Your task to perform on an android device: Play the last video I watched on Youtube Image 0: 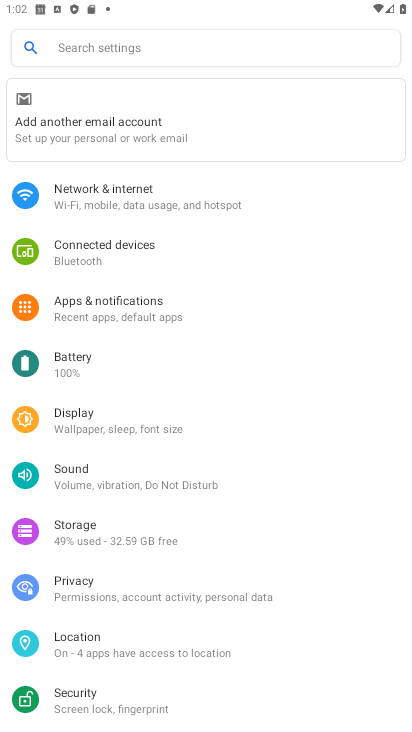
Step 0: press home button
Your task to perform on an android device: Play the last video I watched on Youtube Image 1: 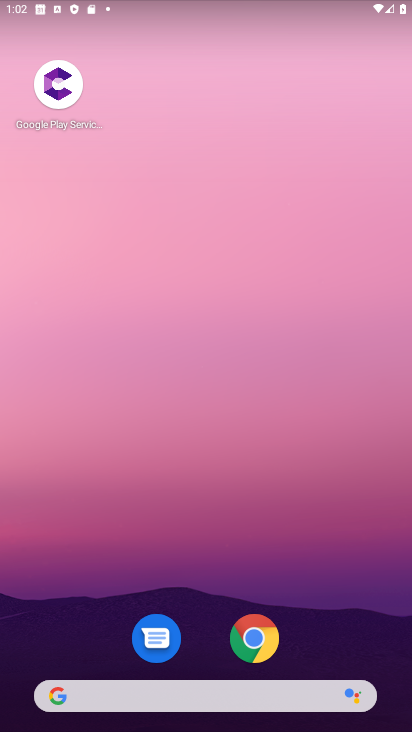
Step 1: drag from (193, 601) to (217, 183)
Your task to perform on an android device: Play the last video I watched on Youtube Image 2: 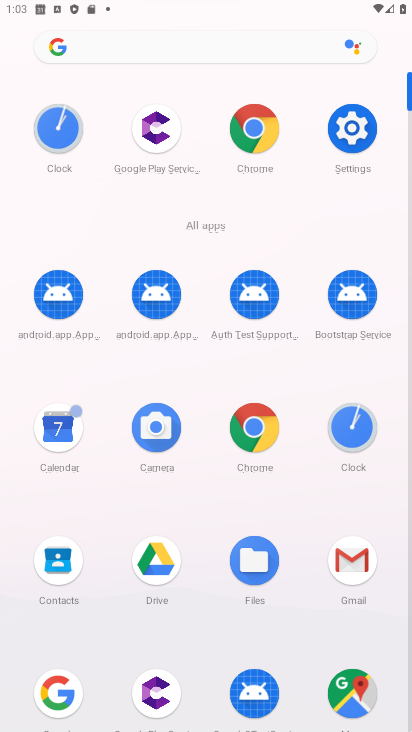
Step 2: drag from (211, 656) to (229, 271)
Your task to perform on an android device: Play the last video I watched on Youtube Image 3: 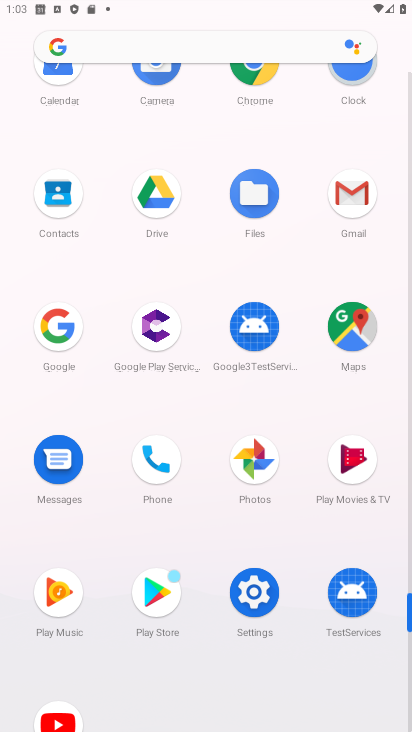
Step 3: click (57, 717)
Your task to perform on an android device: Play the last video I watched on Youtube Image 4: 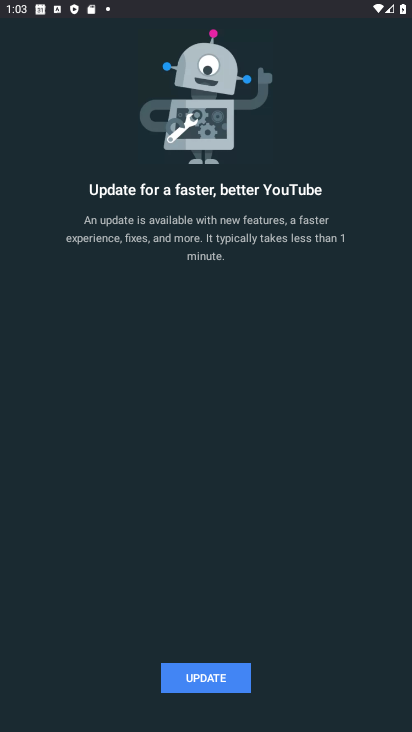
Step 4: click (226, 684)
Your task to perform on an android device: Play the last video I watched on Youtube Image 5: 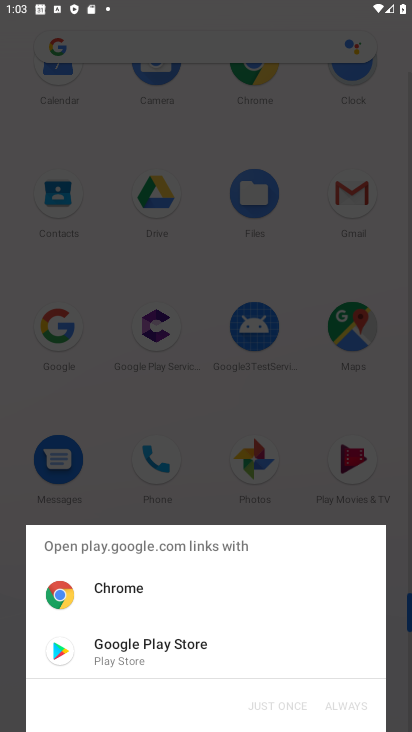
Step 5: click (173, 649)
Your task to perform on an android device: Play the last video I watched on Youtube Image 6: 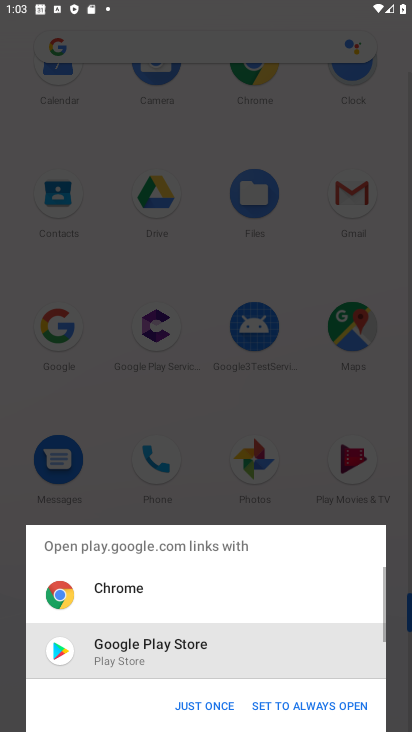
Step 6: click (219, 711)
Your task to perform on an android device: Play the last video I watched on Youtube Image 7: 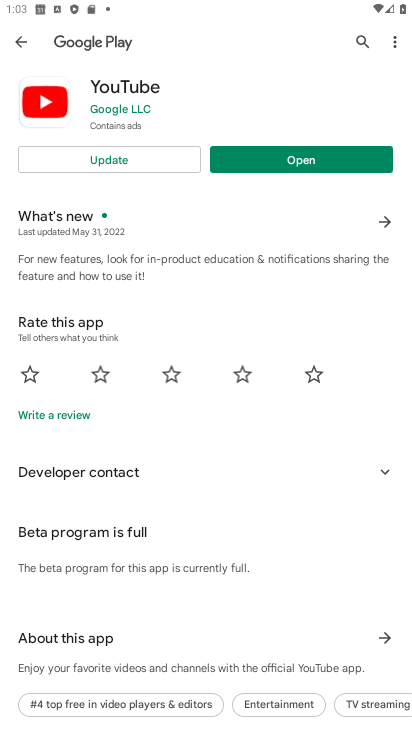
Step 7: click (157, 159)
Your task to perform on an android device: Play the last video I watched on Youtube Image 8: 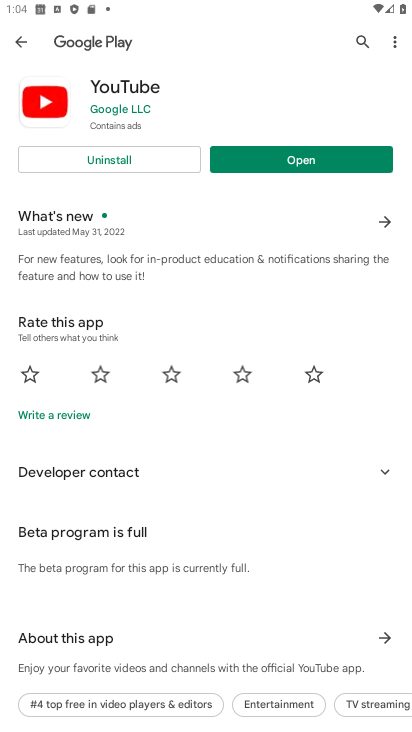
Step 8: click (309, 154)
Your task to perform on an android device: Play the last video I watched on Youtube Image 9: 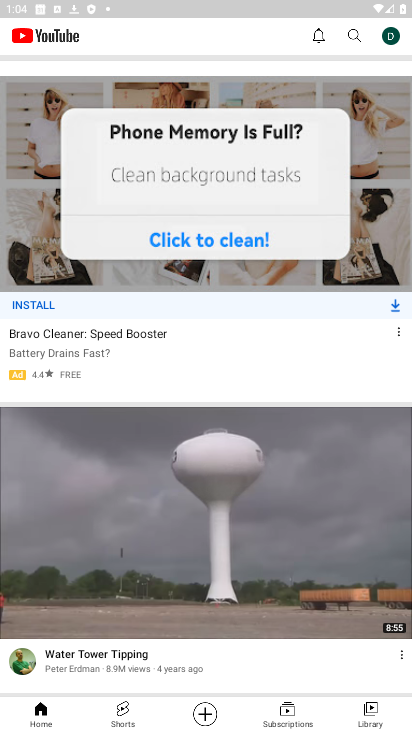
Step 9: click (370, 714)
Your task to perform on an android device: Play the last video I watched on Youtube Image 10: 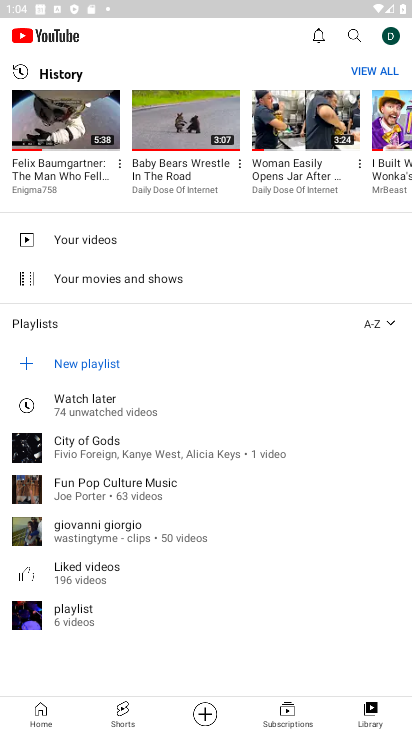
Step 10: click (63, 146)
Your task to perform on an android device: Play the last video I watched on Youtube Image 11: 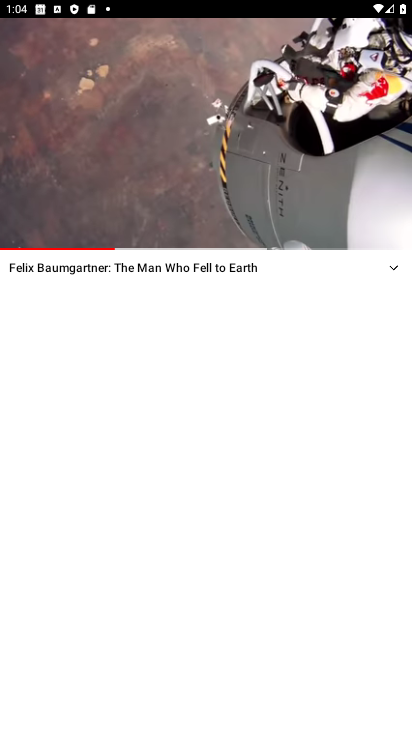
Step 11: click (202, 133)
Your task to perform on an android device: Play the last video I watched on Youtube Image 12: 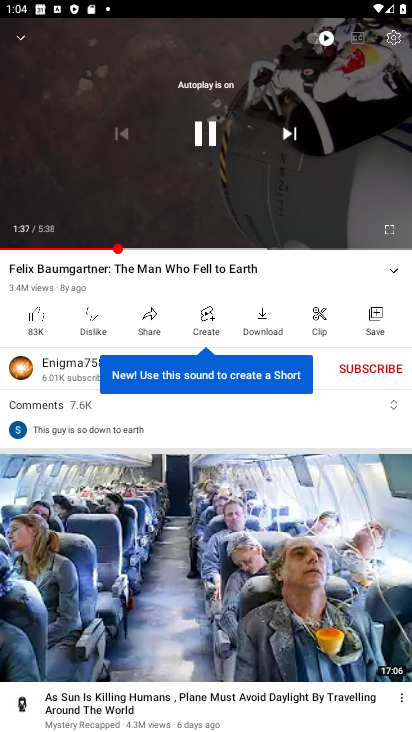
Step 12: click (199, 140)
Your task to perform on an android device: Play the last video I watched on Youtube Image 13: 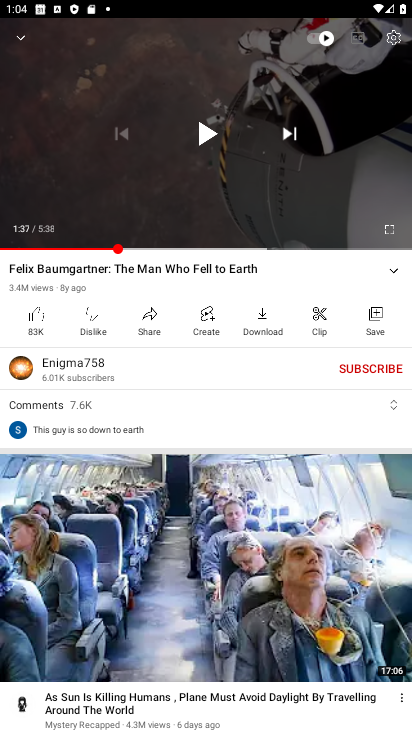
Step 13: task complete